Your task to perform on an android device: check storage Image 0: 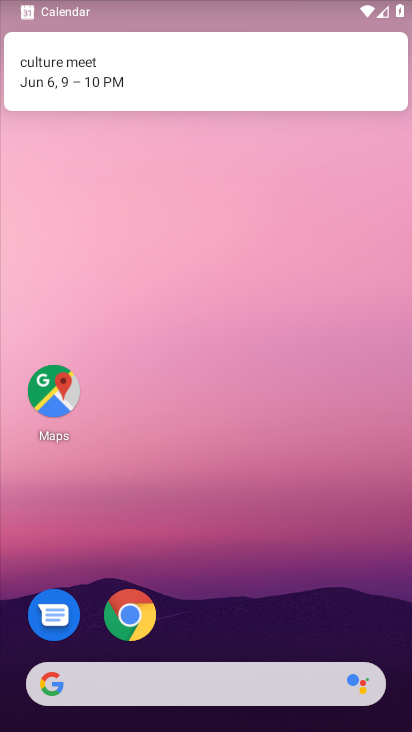
Step 0: drag from (252, 588) to (230, 113)
Your task to perform on an android device: check storage Image 1: 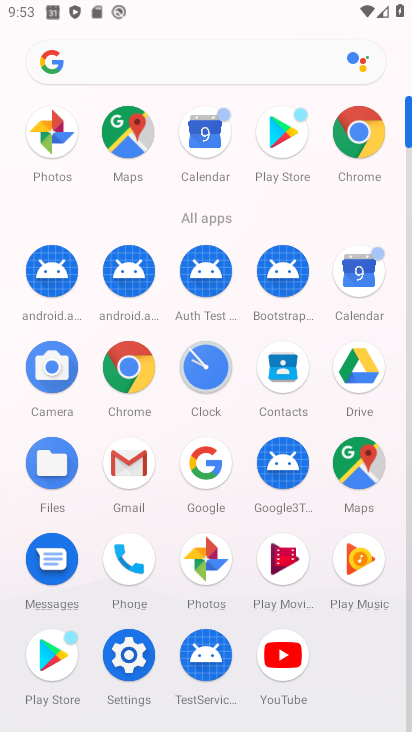
Step 1: click (125, 654)
Your task to perform on an android device: check storage Image 2: 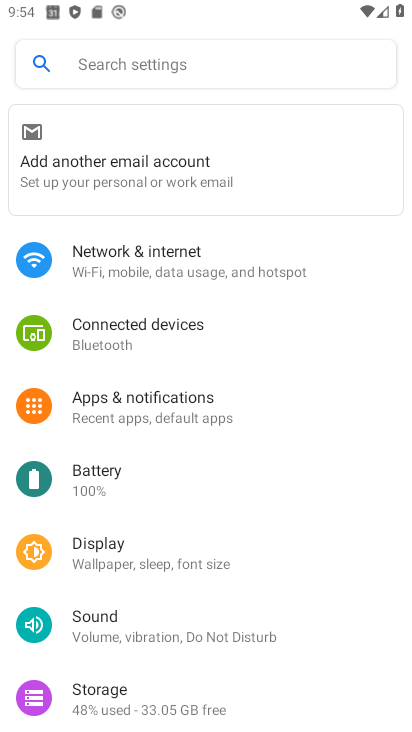
Step 2: click (155, 706)
Your task to perform on an android device: check storage Image 3: 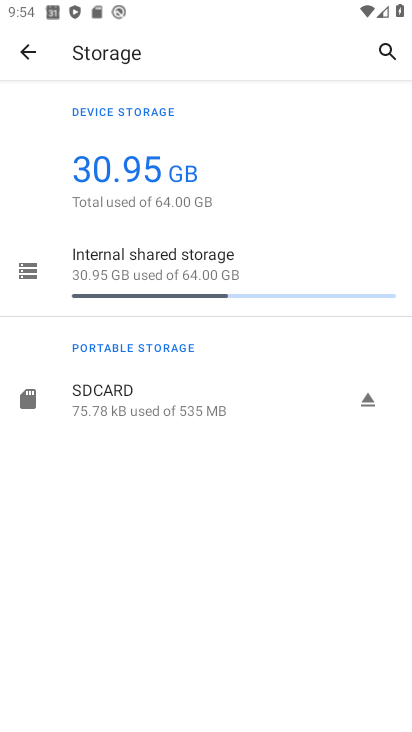
Step 3: task complete